Your task to perform on an android device: manage bookmarks in the chrome app Image 0: 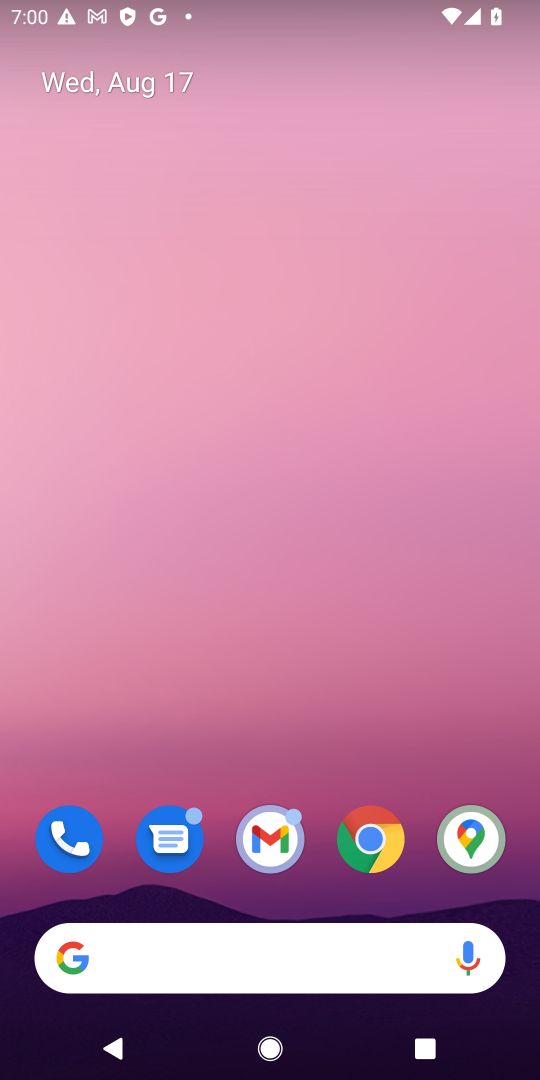
Step 0: click (349, 839)
Your task to perform on an android device: manage bookmarks in the chrome app Image 1: 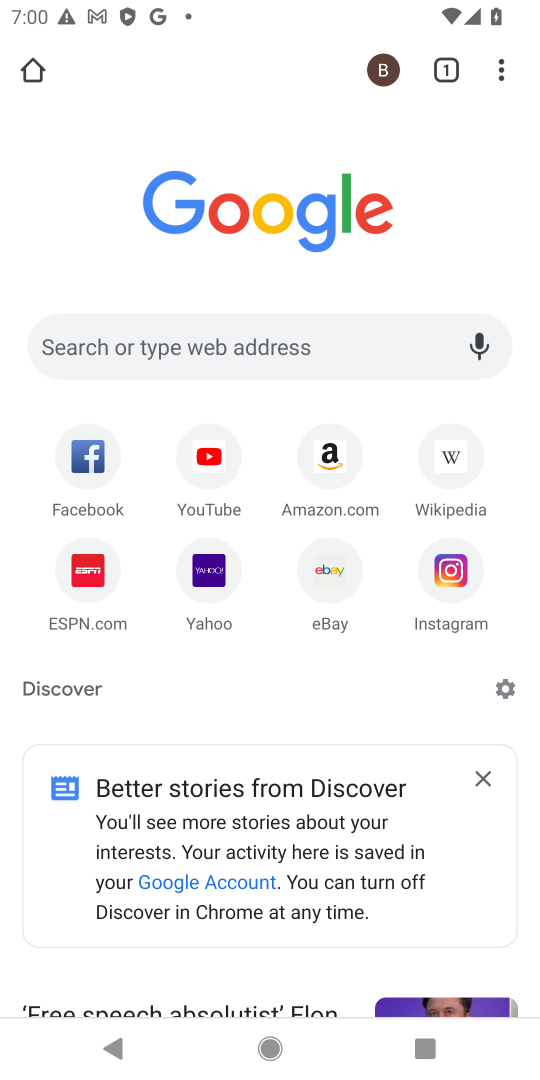
Step 1: click (495, 78)
Your task to perform on an android device: manage bookmarks in the chrome app Image 2: 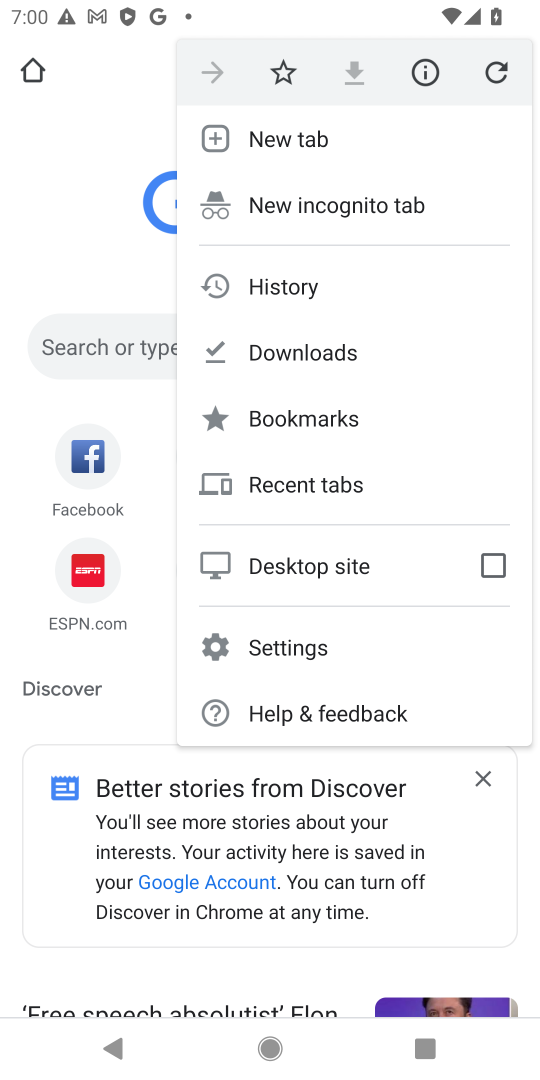
Step 2: click (266, 416)
Your task to perform on an android device: manage bookmarks in the chrome app Image 3: 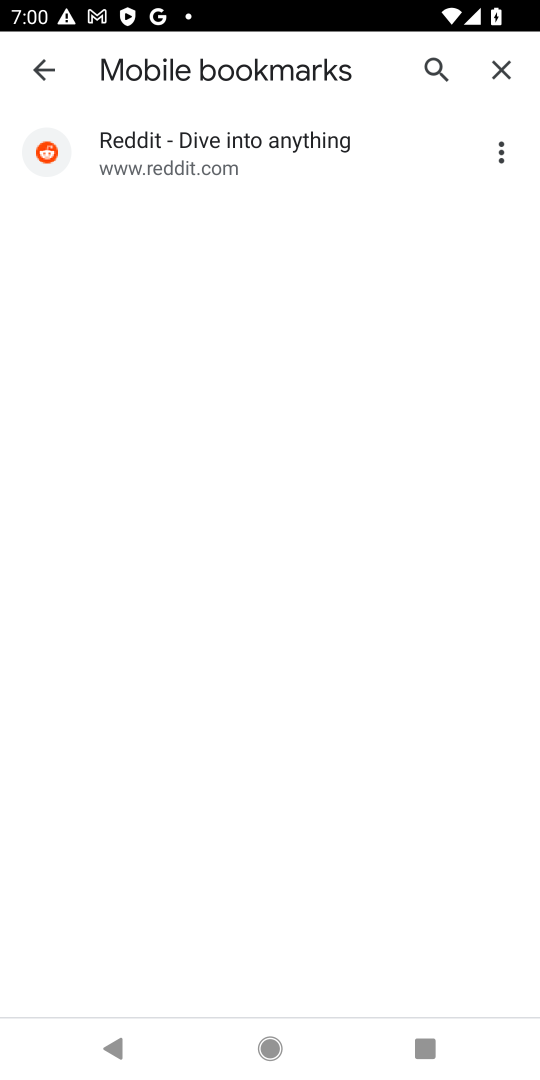
Step 3: click (499, 168)
Your task to perform on an android device: manage bookmarks in the chrome app Image 4: 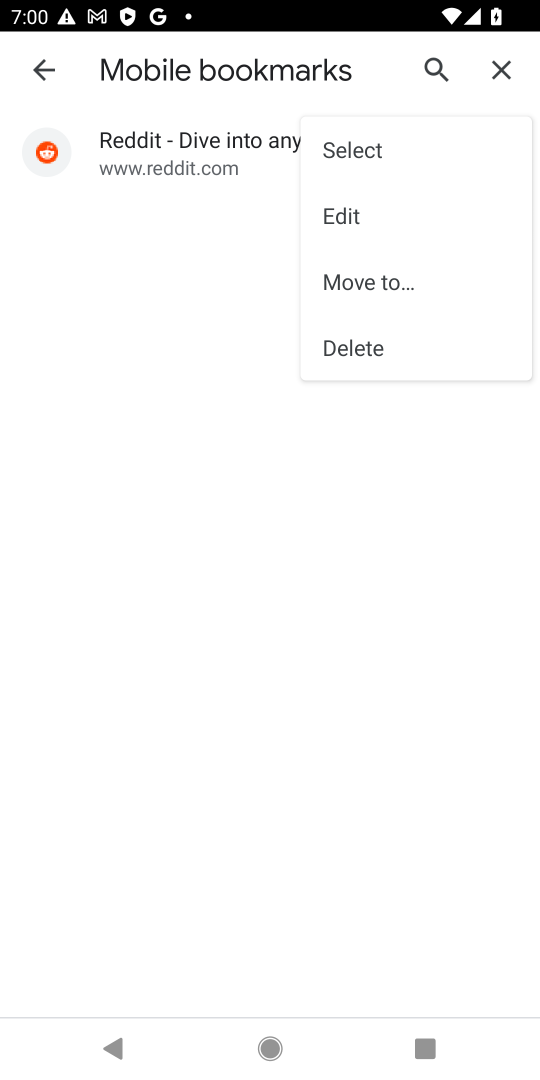
Step 4: click (353, 197)
Your task to perform on an android device: manage bookmarks in the chrome app Image 5: 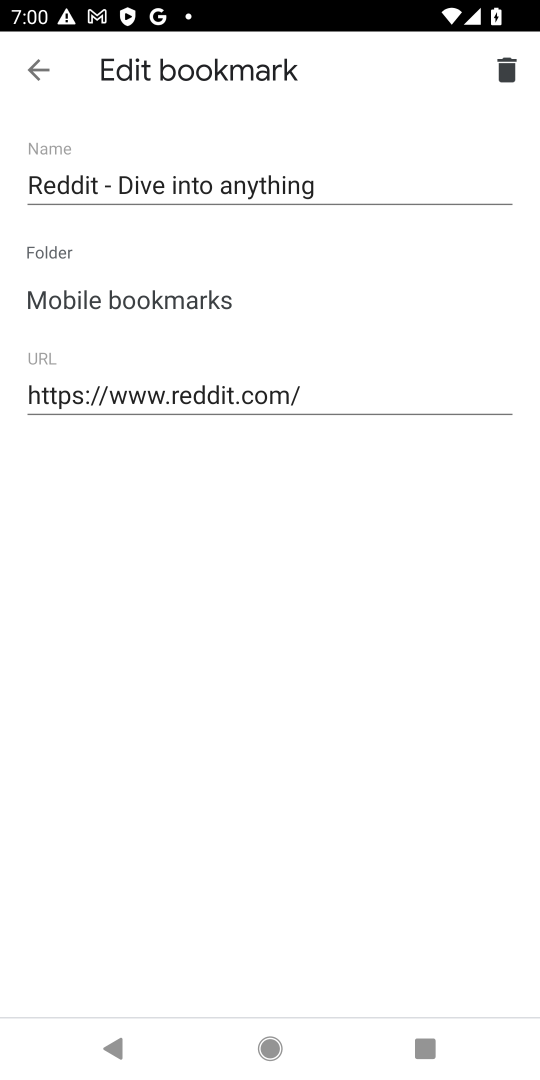
Step 5: task complete